Your task to perform on an android device: turn off data saver in the chrome app Image 0: 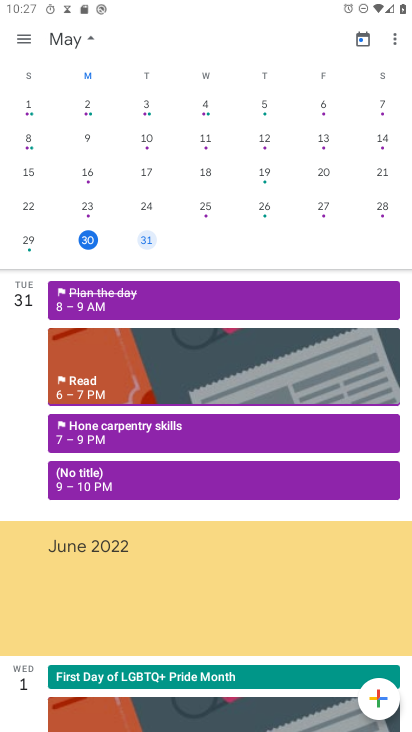
Step 0: press home button
Your task to perform on an android device: turn off data saver in the chrome app Image 1: 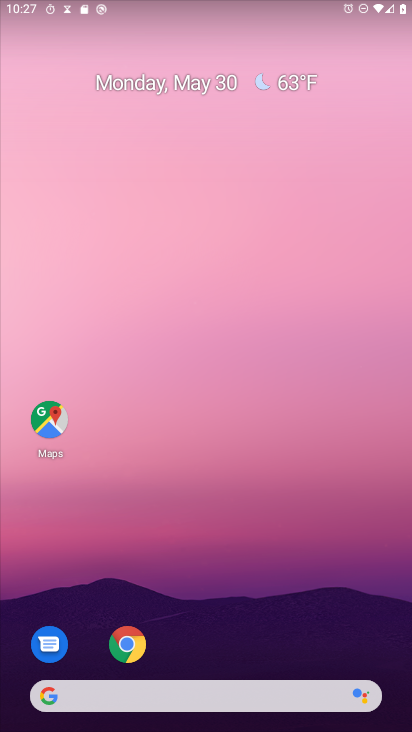
Step 1: click (128, 646)
Your task to perform on an android device: turn off data saver in the chrome app Image 2: 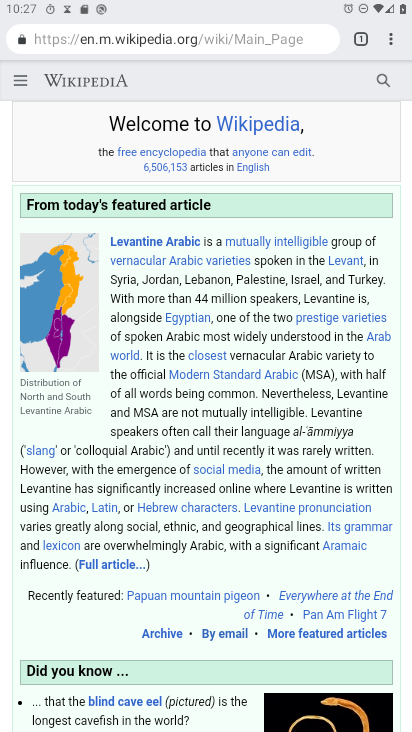
Step 2: click (389, 35)
Your task to perform on an android device: turn off data saver in the chrome app Image 3: 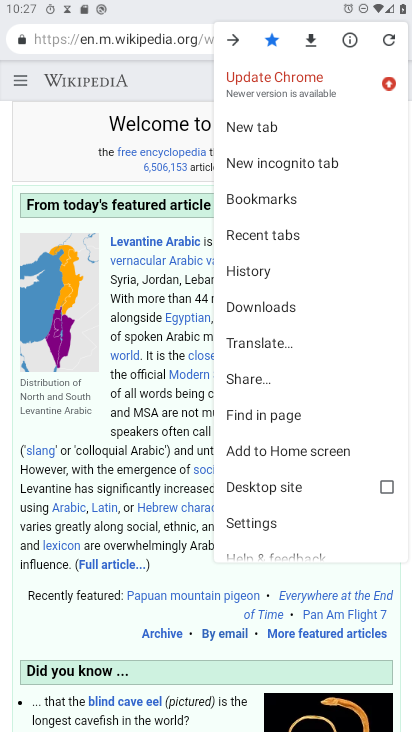
Step 3: click (276, 525)
Your task to perform on an android device: turn off data saver in the chrome app Image 4: 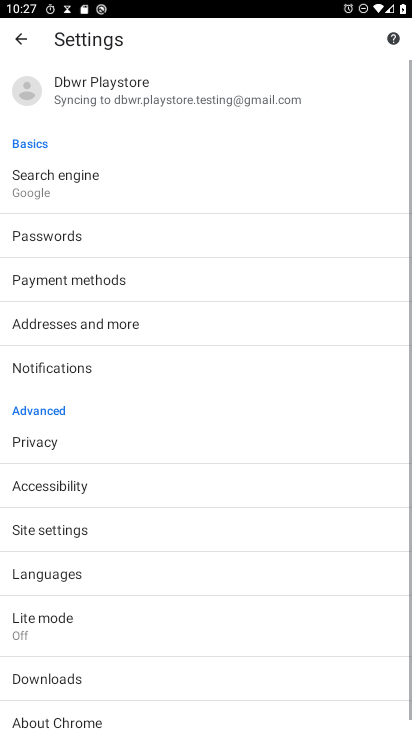
Step 4: task complete